Your task to perform on an android device: Go to calendar. Show me events next week Image 0: 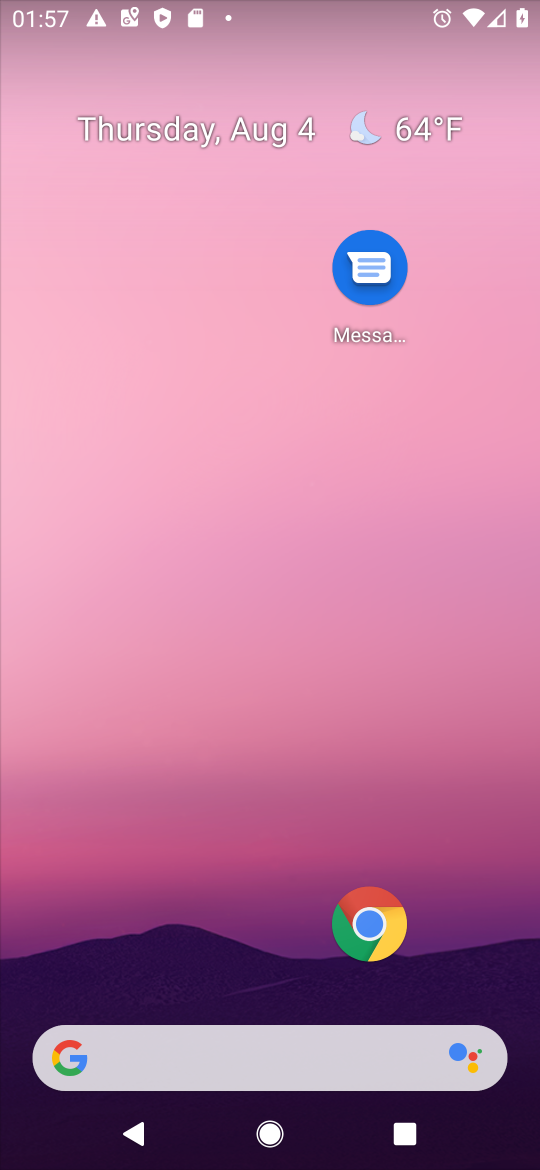
Step 0: drag from (81, 1006) to (143, 77)
Your task to perform on an android device: Go to calendar. Show me events next week Image 1: 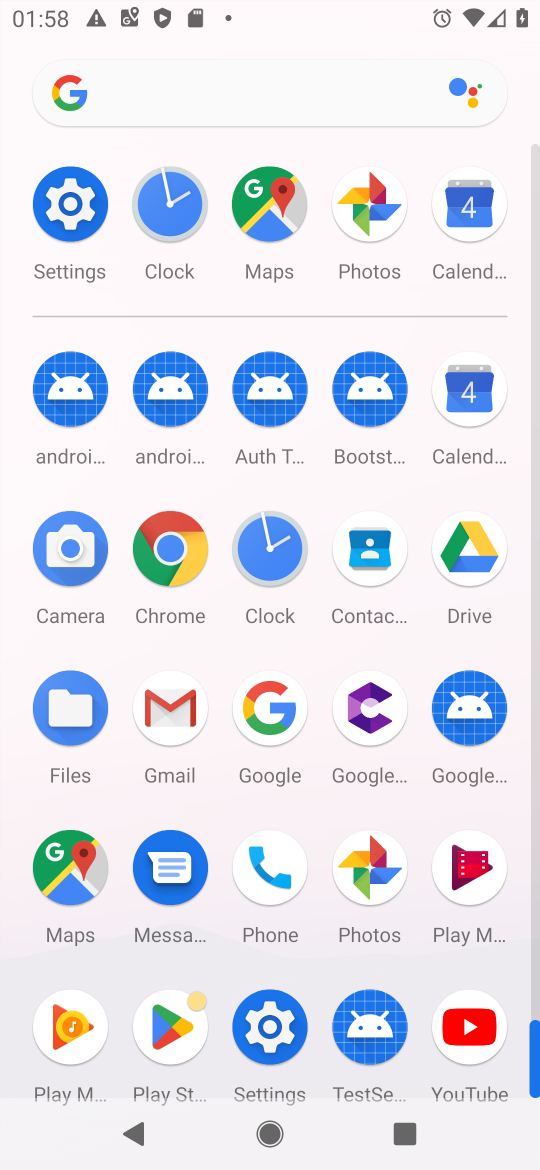
Step 1: click (478, 413)
Your task to perform on an android device: Go to calendar. Show me events next week Image 2: 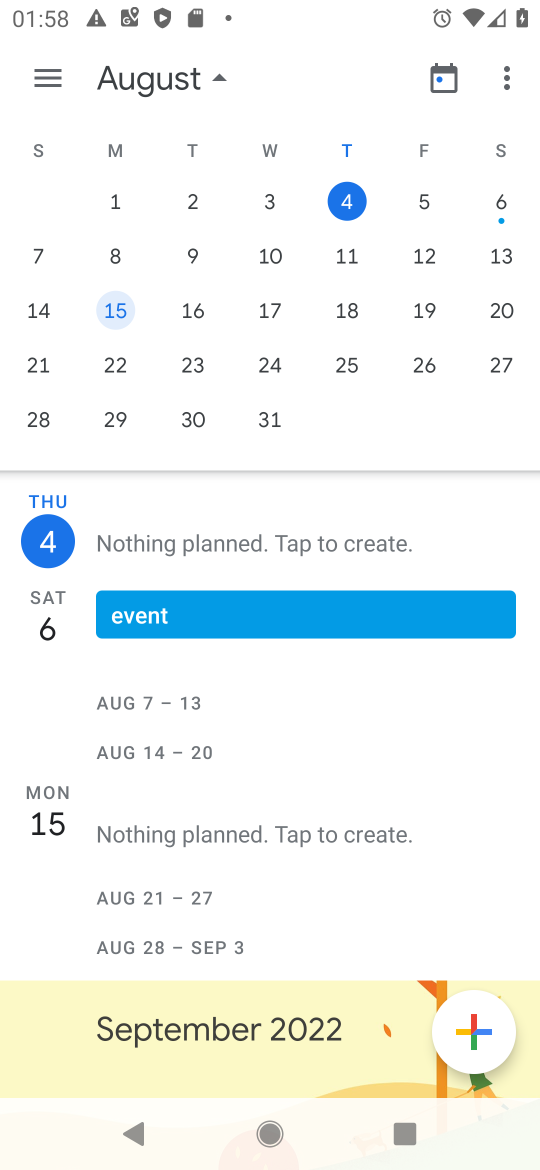
Step 2: task complete